Your task to perform on an android device: set the timer Image 0: 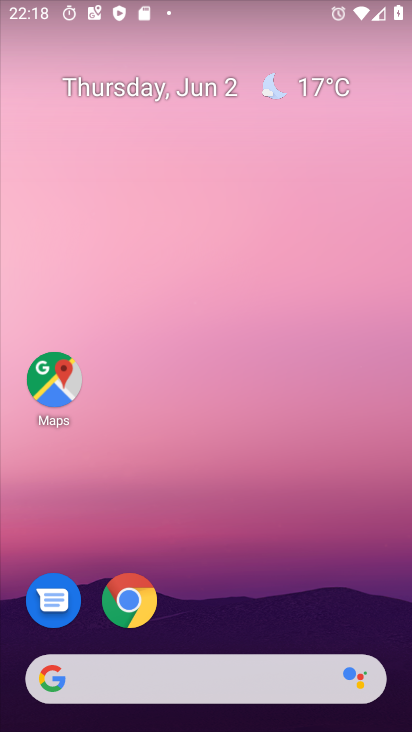
Step 0: drag from (357, 629) to (345, 260)
Your task to perform on an android device: set the timer Image 1: 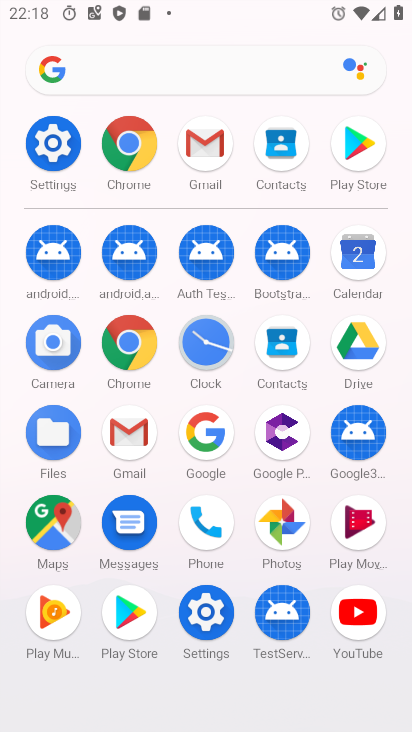
Step 1: click (212, 351)
Your task to perform on an android device: set the timer Image 2: 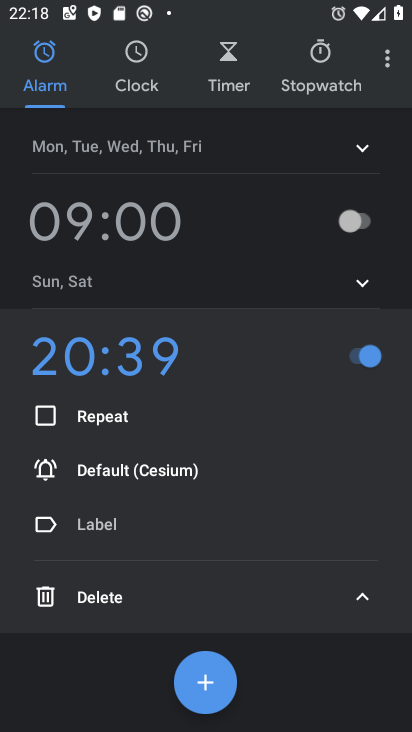
Step 2: click (228, 85)
Your task to perform on an android device: set the timer Image 3: 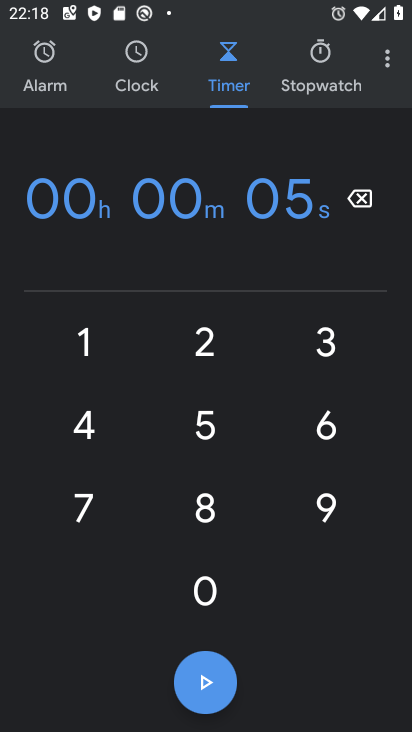
Step 3: click (203, 430)
Your task to perform on an android device: set the timer Image 4: 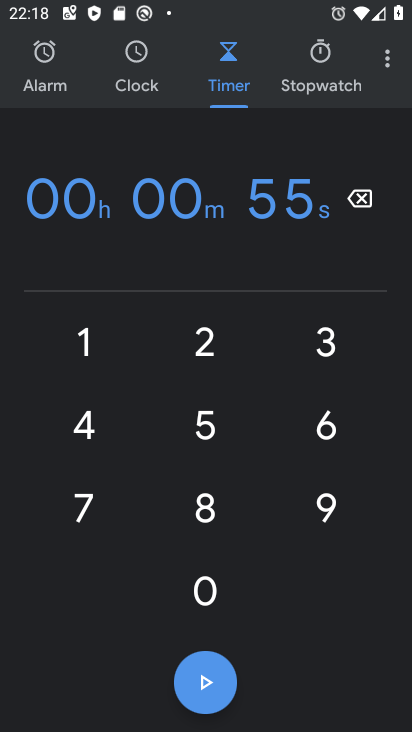
Step 4: task complete